Your task to perform on an android device: Open accessibility settings Image 0: 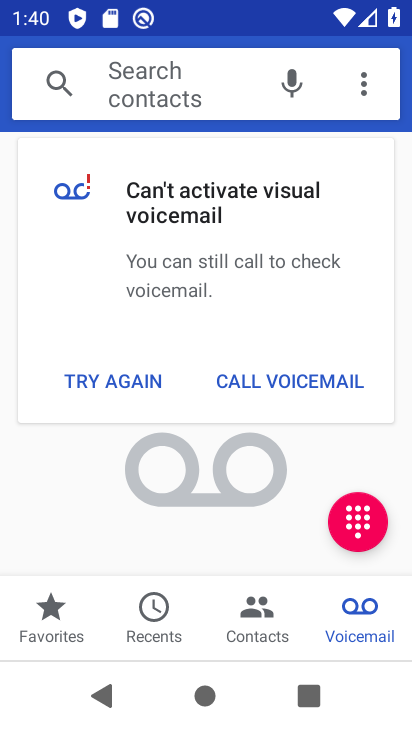
Step 0: drag from (236, 524) to (232, 194)
Your task to perform on an android device: Open accessibility settings Image 1: 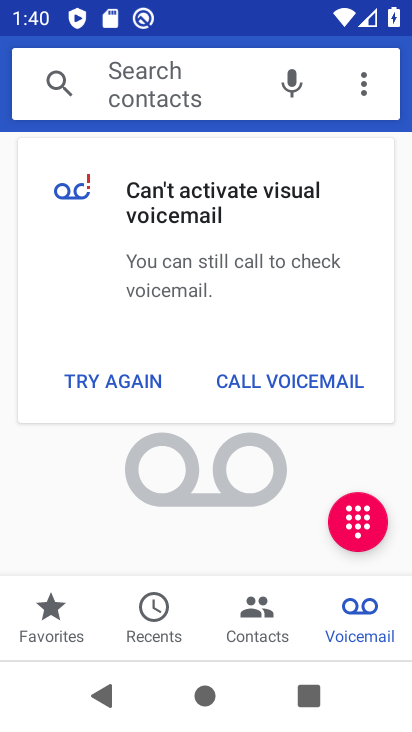
Step 1: press home button
Your task to perform on an android device: Open accessibility settings Image 2: 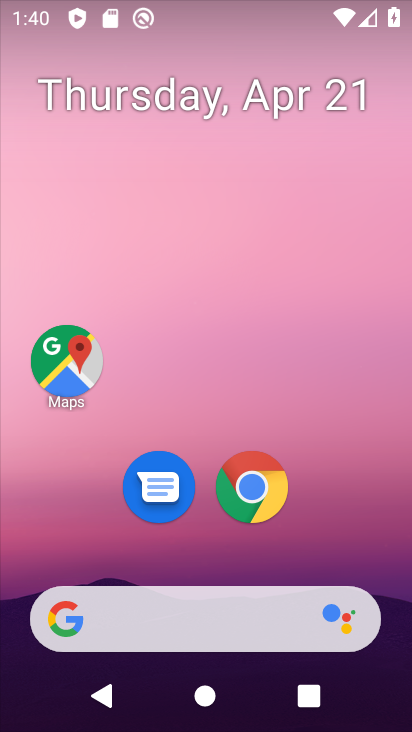
Step 2: drag from (215, 568) to (259, 171)
Your task to perform on an android device: Open accessibility settings Image 3: 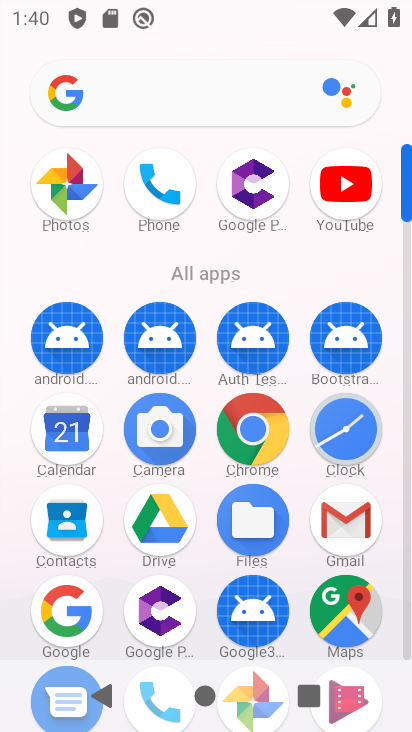
Step 3: drag from (217, 496) to (210, 17)
Your task to perform on an android device: Open accessibility settings Image 4: 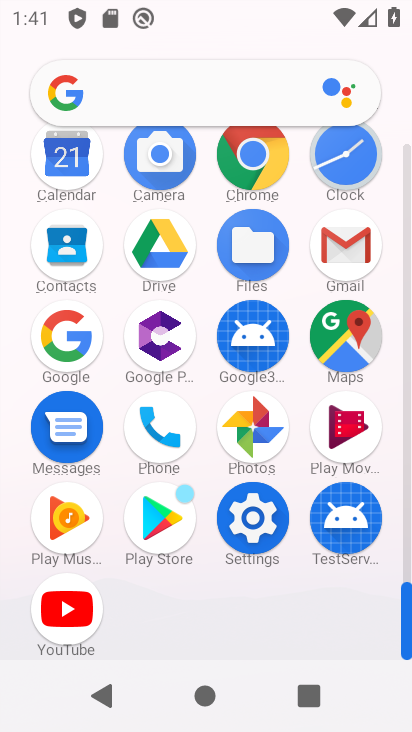
Step 4: click (254, 523)
Your task to perform on an android device: Open accessibility settings Image 5: 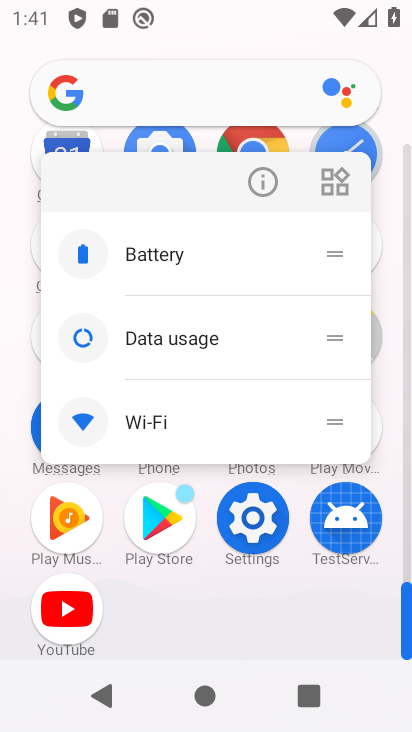
Step 5: click (265, 176)
Your task to perform on an android device: Open accessibility settings Image 6: 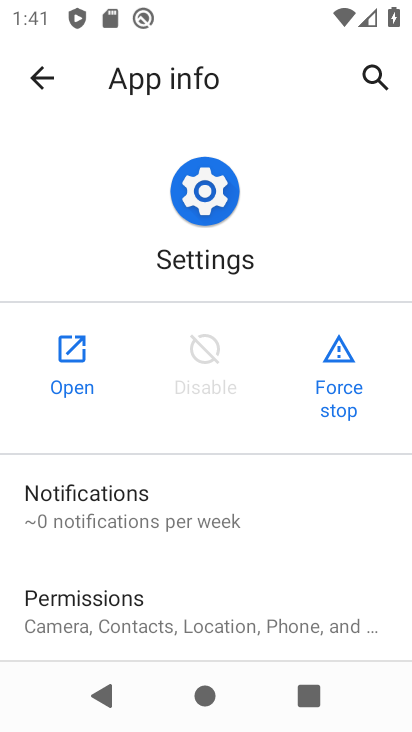
Step 6: click (78, 348)
Your task to perform on an android device: Open accessibility settings Image 7: 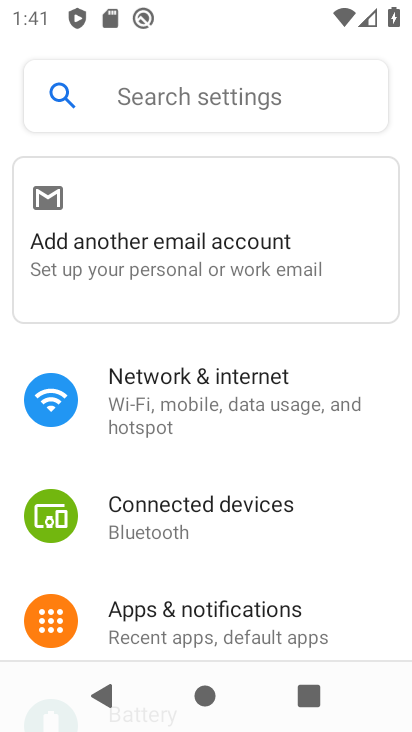
Step 7: drag from (229, 601) to (385, 106)
Your task to perform on an android device: Open accessibility settings Image 8: 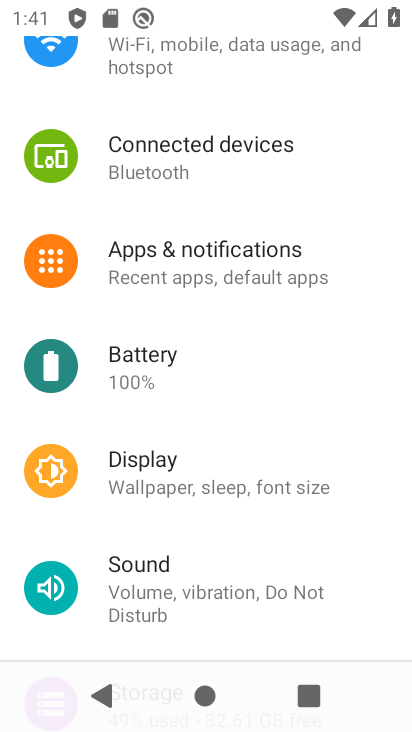
Step 8: drag from (188, 532) to (267, 38)
Your task to perform on an android device: Open accessibility settings Image 9: 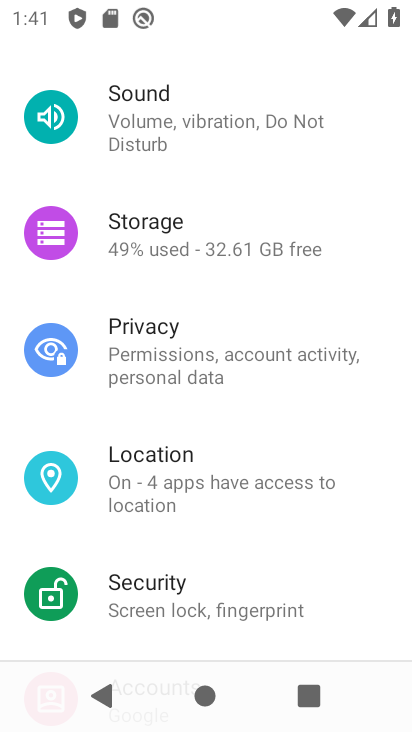
Step 9: drag from (207, 583) to (280, 1)
Your task to perform on an android device: Open accessibility settings Image 10: 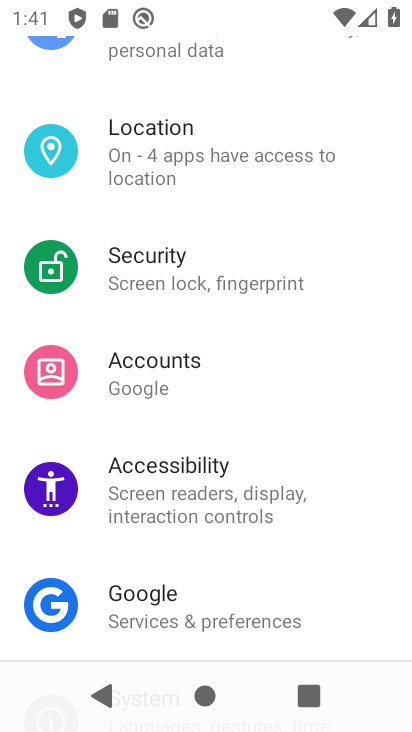
Step 10: click (176, 491)
Your task to perform on an android device: Open accessibility settings Image 11: 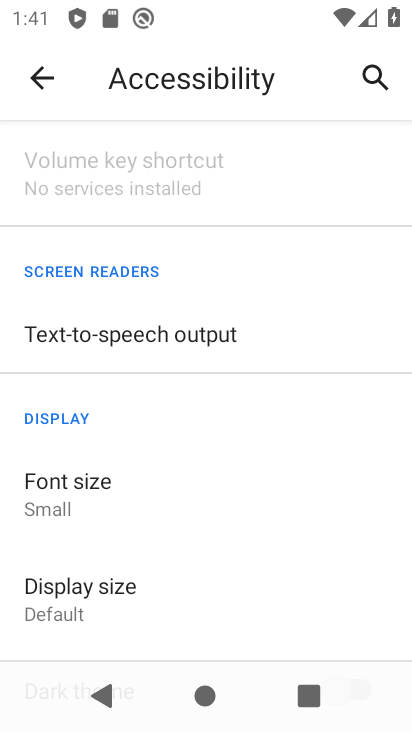
Step 11: task complete